Your task to perform on an android device: turn on javascript in the chrome app Image 0: 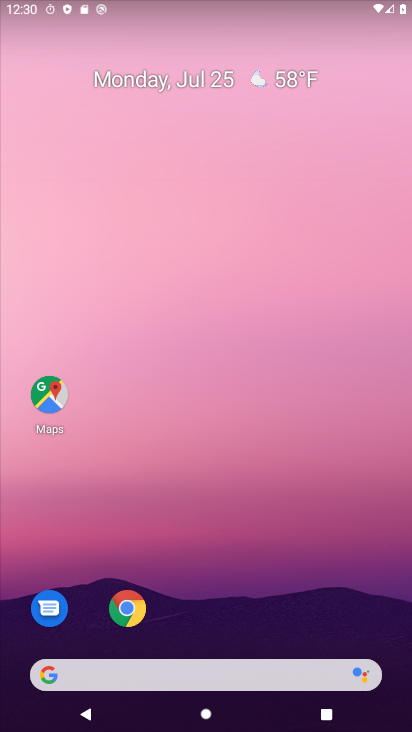
Step 0: drag from (243, 564) to (207, 63)
Your task to perform on an android device: turn on javascript in the chrome app Image 1: 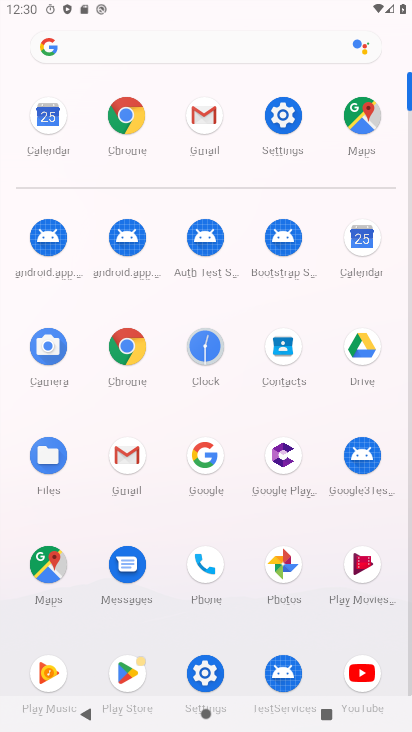
Step 1: click (126, 116)
Your task to perform on an android device: turn on javascript in the chrome app Image 2: 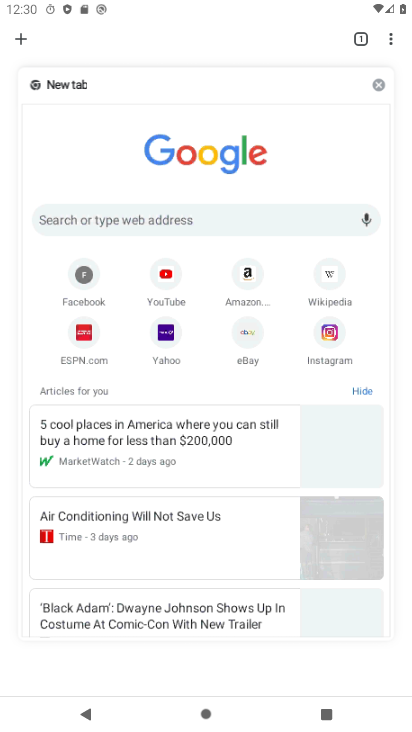
Step 2: drag from (398, 35) to (263, 143)
Your task to perform on an android device: turn on javascript in the chrome app Image 3: 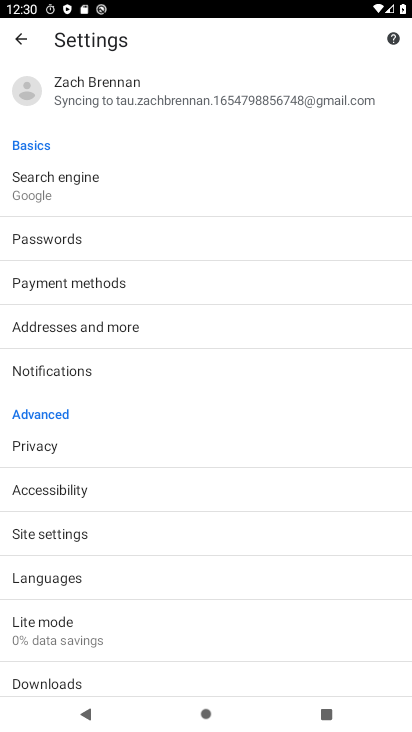
Step 3: click (58, 540)
Your task to perform on an android device: turn on javascript in the chrome app Image 4: 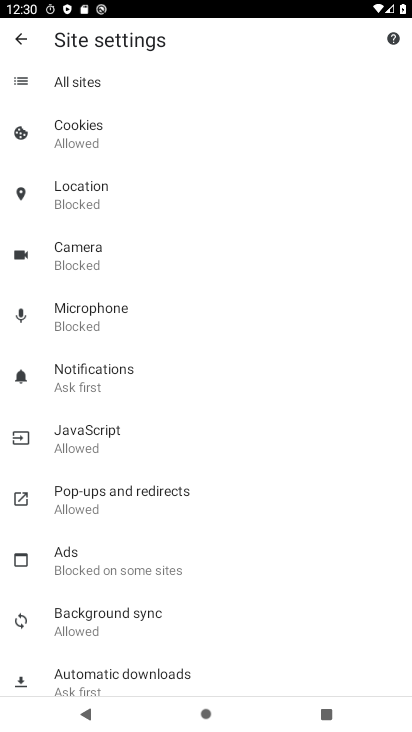
Step 4: click (118, 457)
Your task to perform on an android device: turn on javascript in the chrome app Image 5: 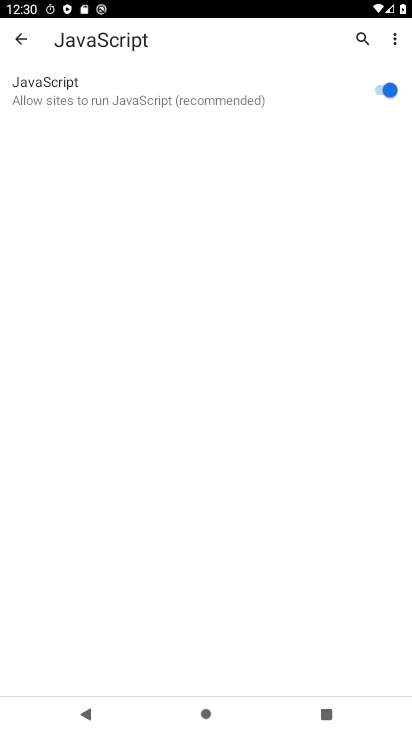
Step 5: task complete